Your task to perform on an android device: Open Amazon Image 0: 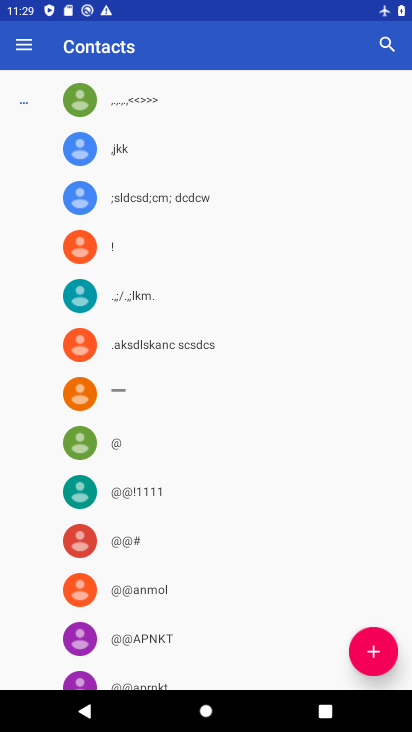
Step 0: press home button
Your task to perform on an android device: Open Amazon Image 1: 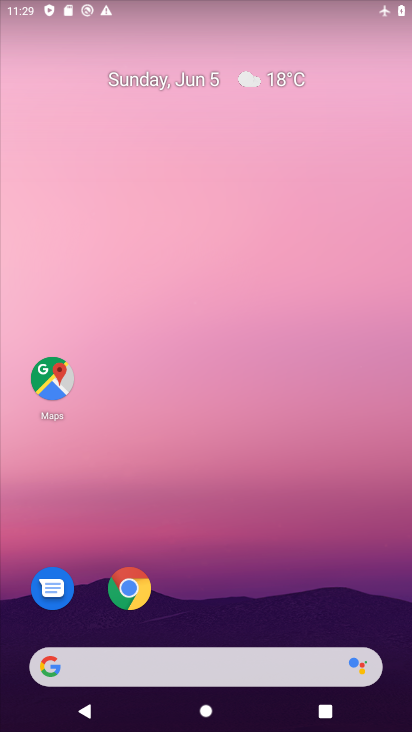
Step 1: click (129, 583)
Your task to perform on an android device: Open Amazon Image 2: 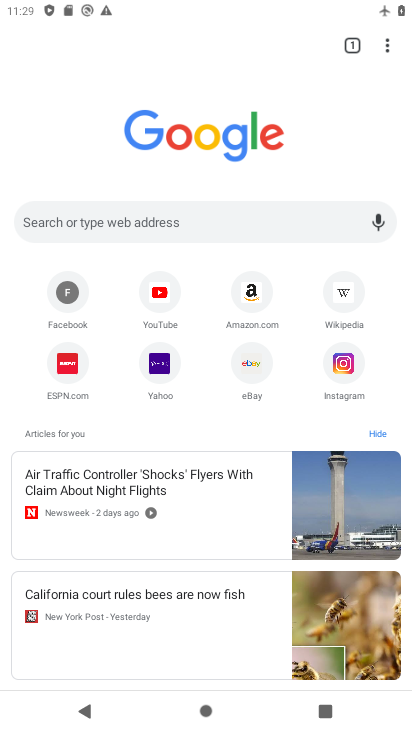
Step 2: click (258, 298)
Your task to perform on an android device: Open Amazon Image 3: 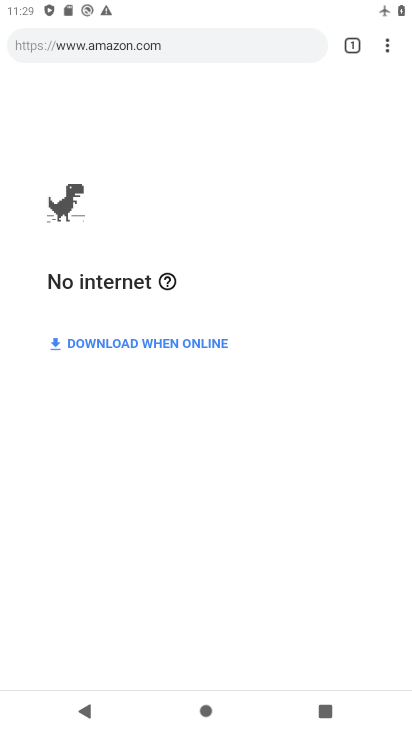
Step 3: task complete